Your task to perform on an android device: uninstall "Spotify: Music and Podcasts" Image 0: 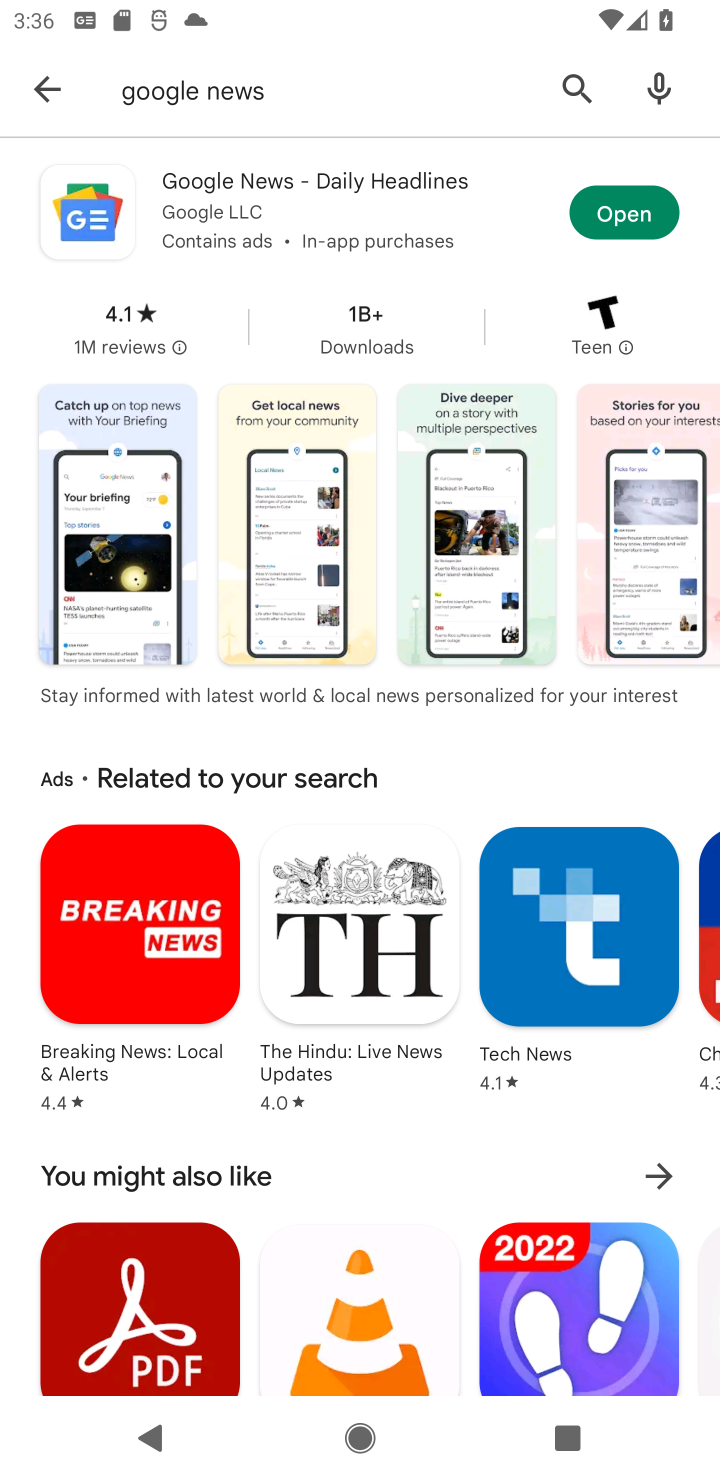
Step 0: press home button
Your task to perform on an android device: uninstall "Spotify: Music and Podcasts" Image 1: 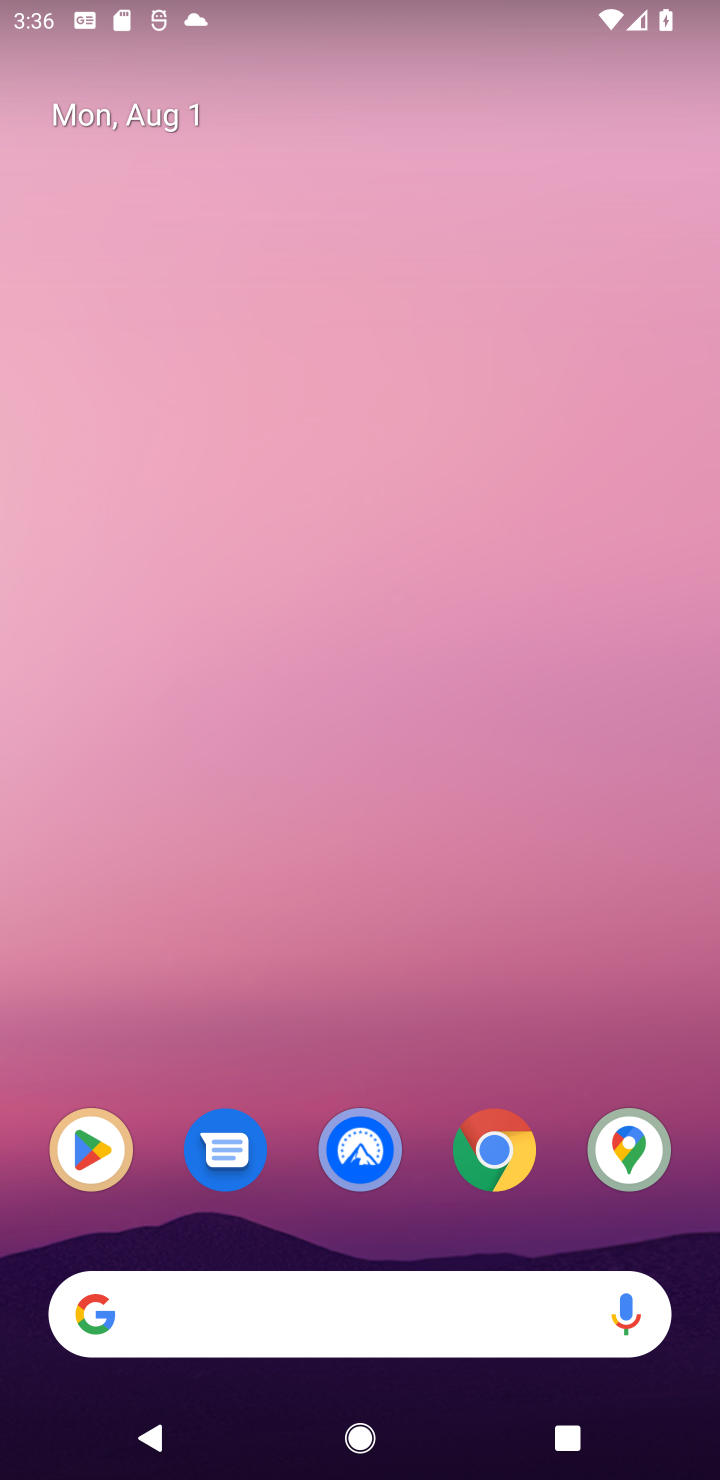
Step 1: click (73, 1171)
Your task to perform on an android device: uninstall "Spotify: Music and Podcasts" Image 2: 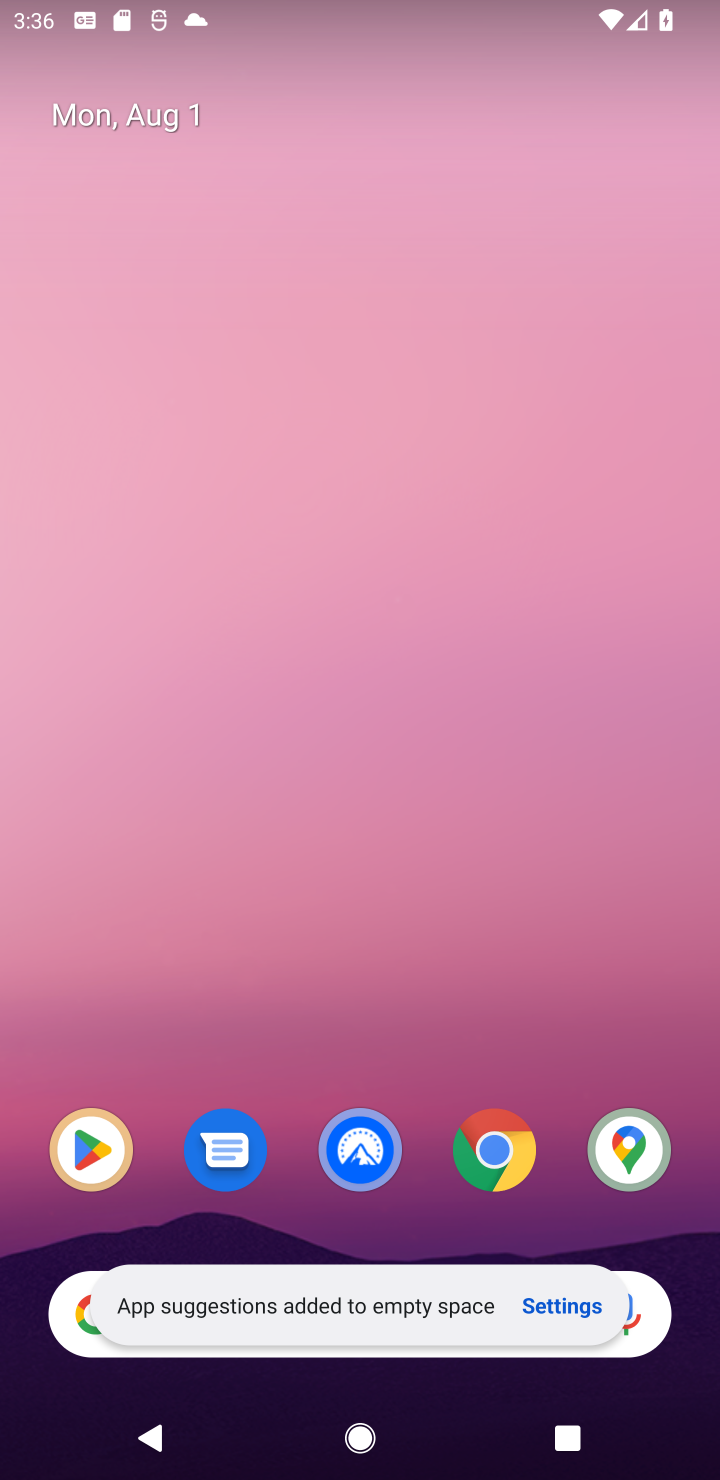
Step 2: click (176, 925)
Your task to perform on an android device: uninstall "Spotify: Music and Podcasts" Image 3: 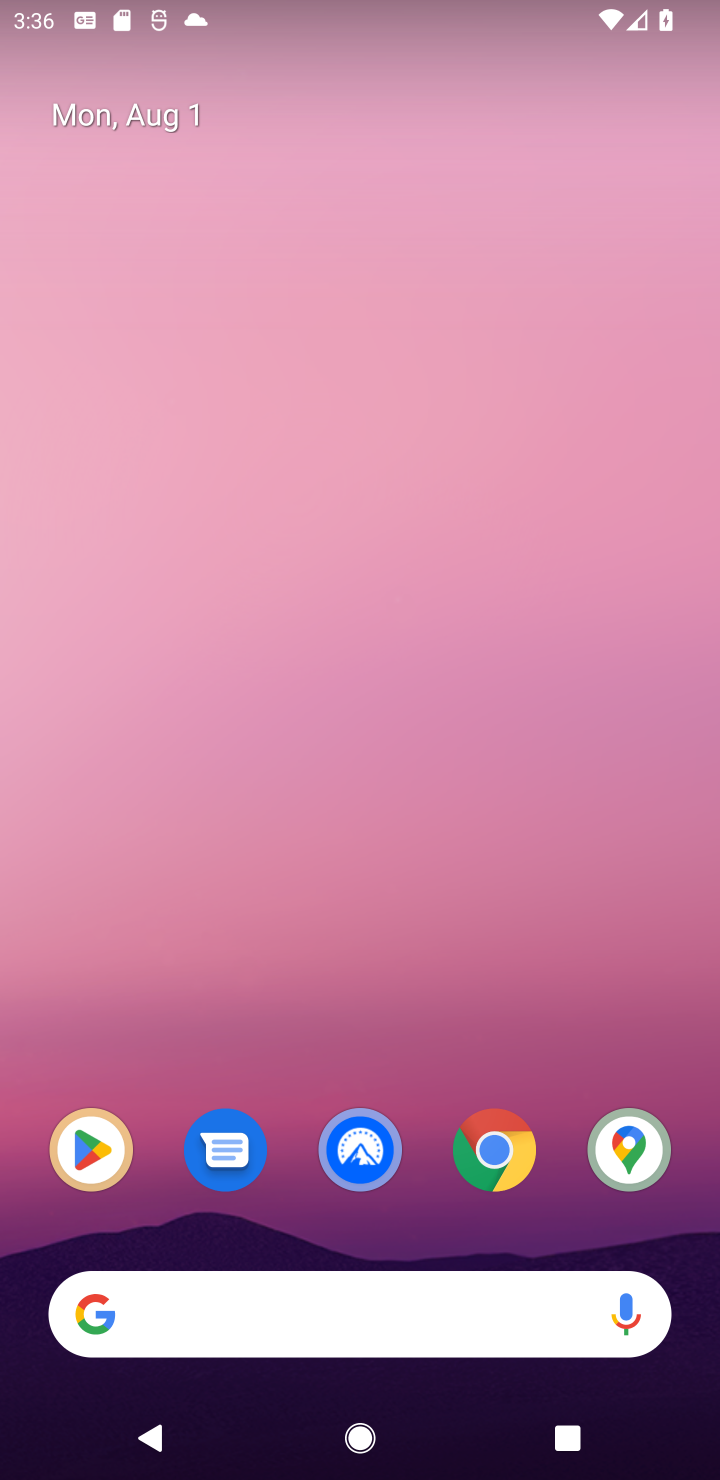
Step 3: click (91, 1127)
Your task to perform on an android device: uninstall "Spotify: Music and Podcasts" Image 4: 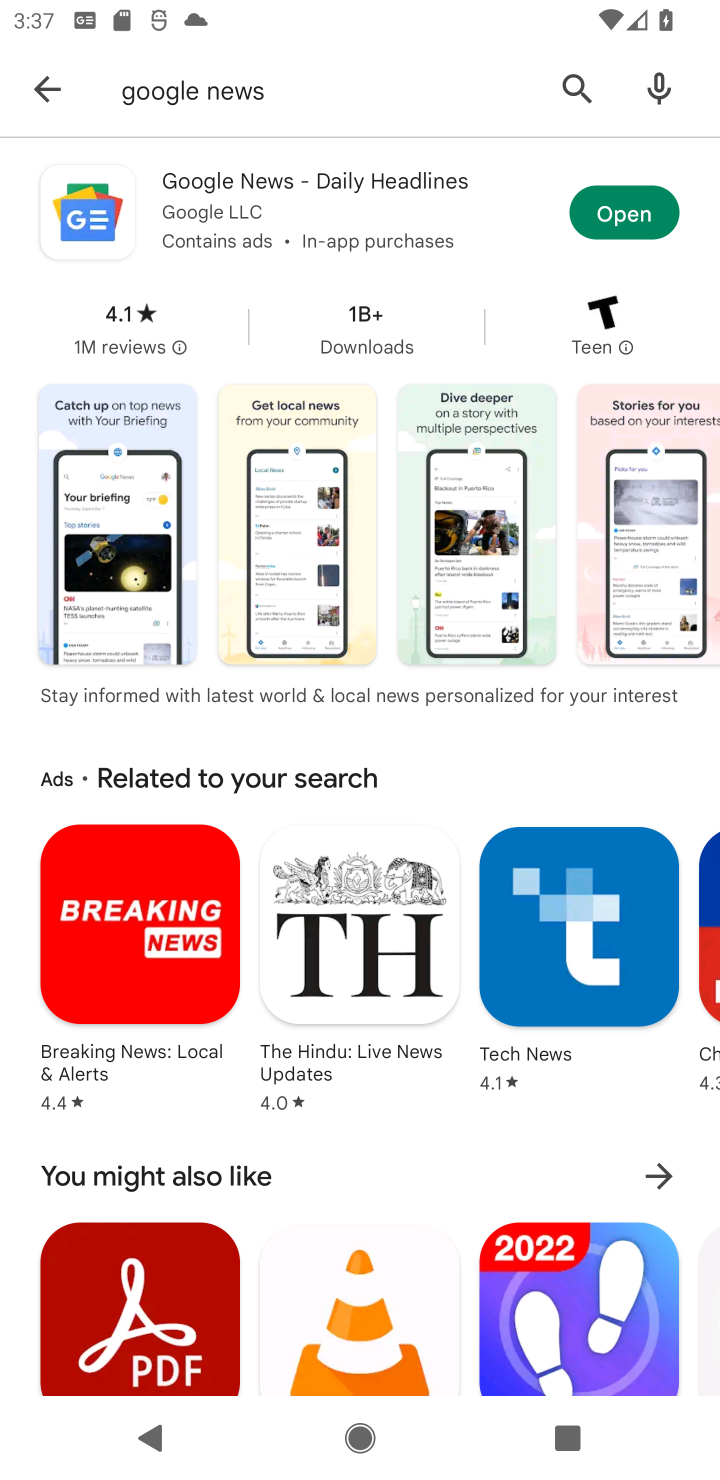
Step 4: click (576, 100)
Your task to perform on an android device: uninstall "Spotify: Music and Podcasts" Image 5: 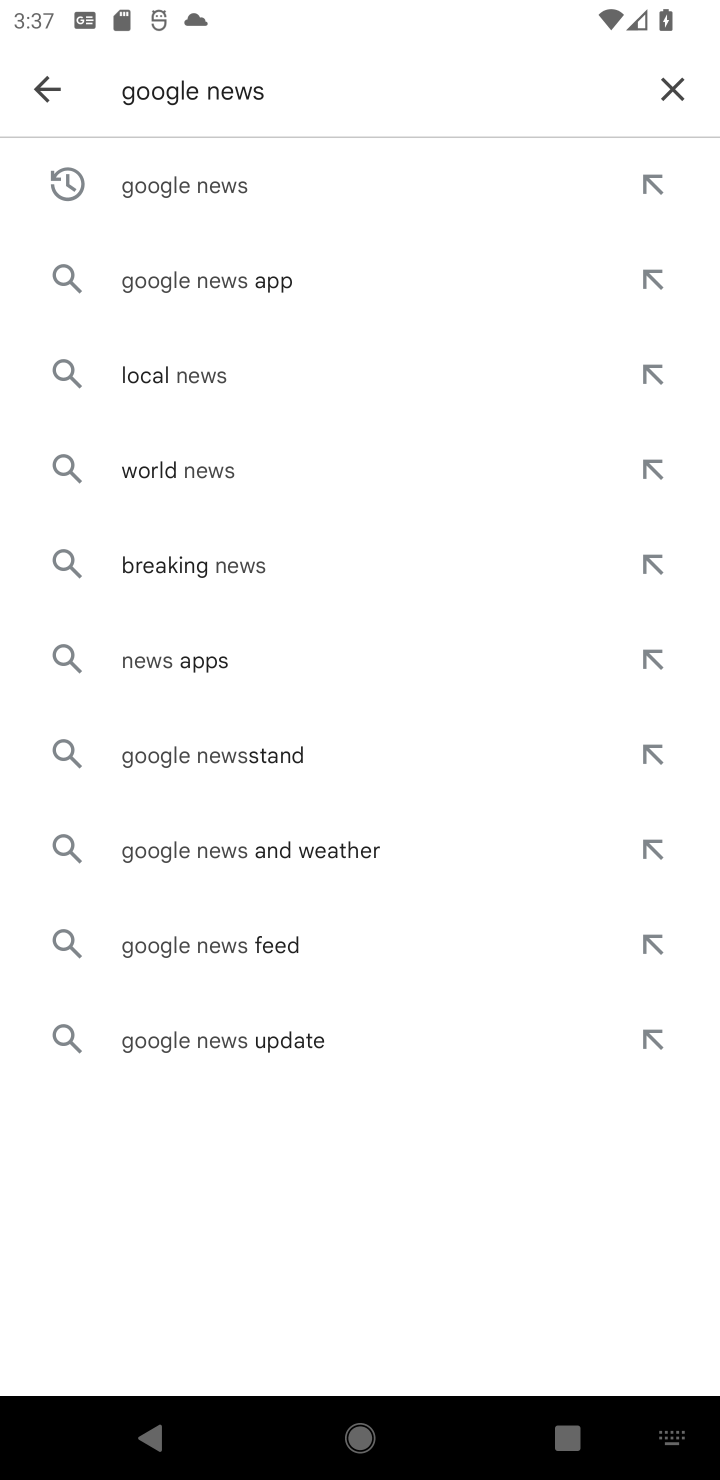
Step 5: click (657, 96)
Your task to perform on an android device: uninstall "Spotify: Music and Podcasts" Image 6: 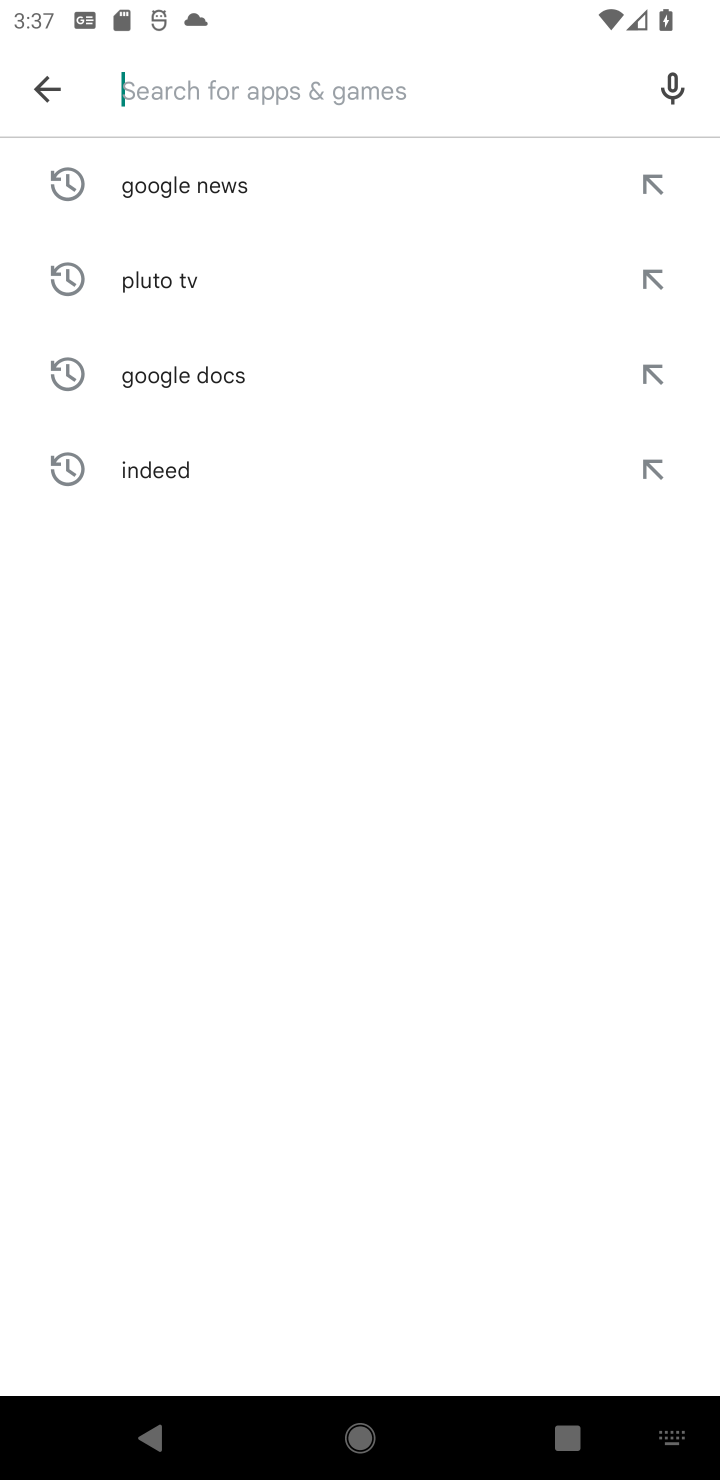
Step 6: type "spotify"
Your task to perform on an android device: uninstall "Spotify: Music and Podcasts" Image 7: 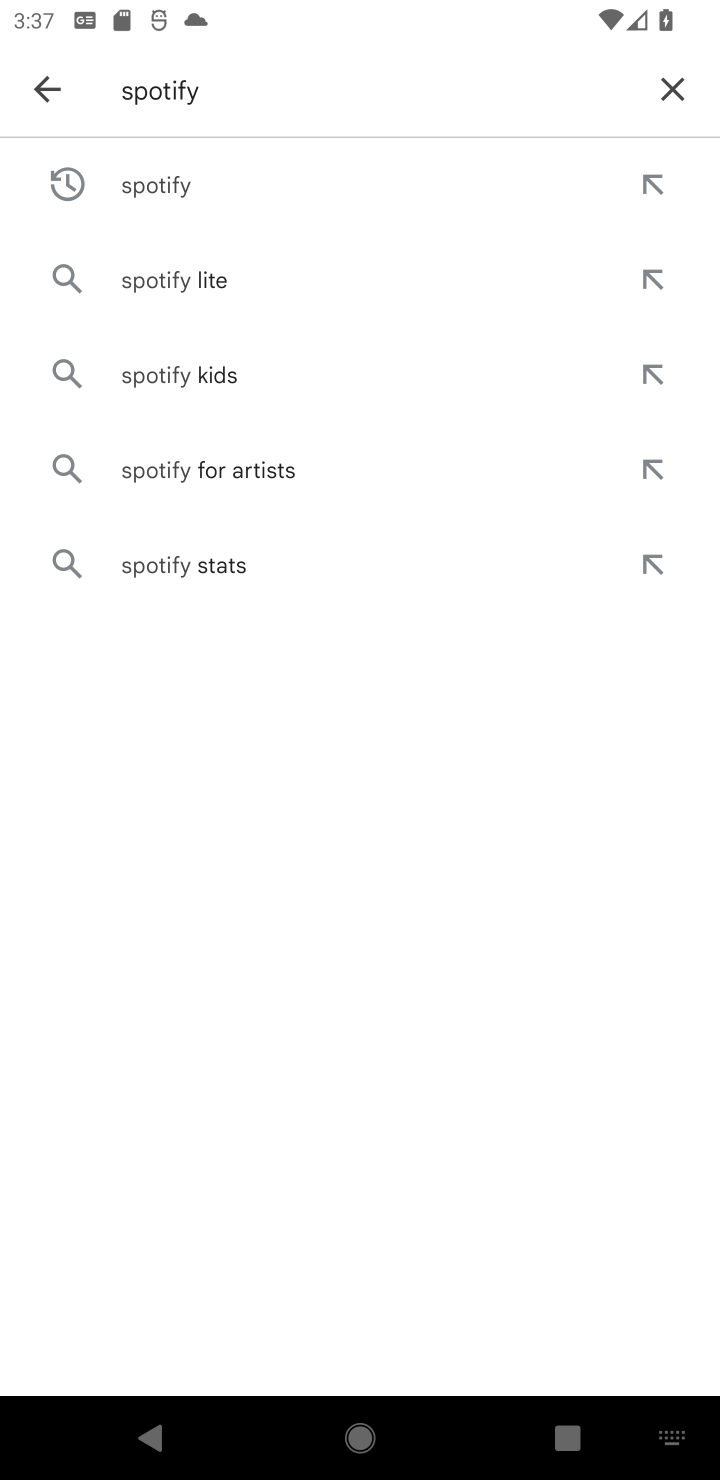
Step 7: click (195, 192)
Your task to perform on an android device: uninstall "Spotify: Music and Podcasts" Image 8: 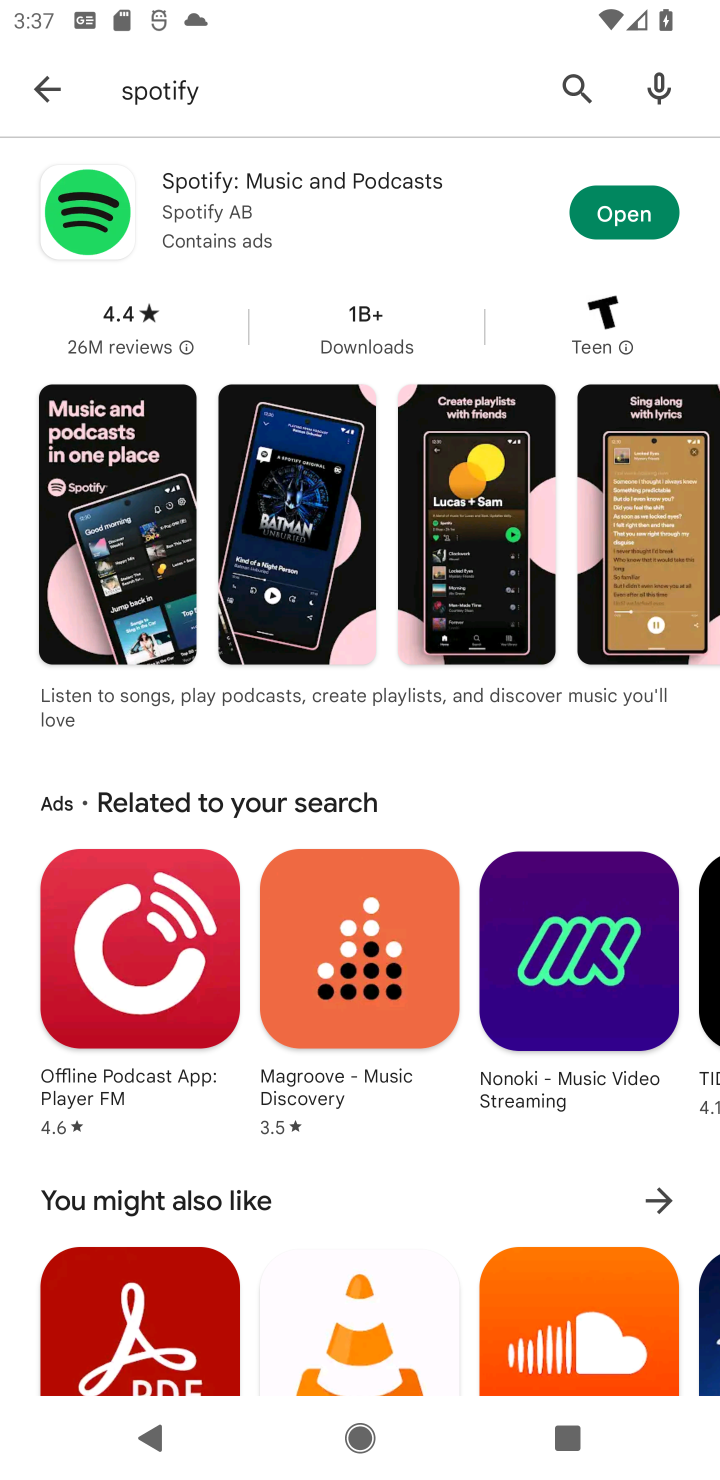
Step 8: click (630, 213)
Your task to perform on an android device: uninstall "Spotify: Music and Podcasts" Image 9: 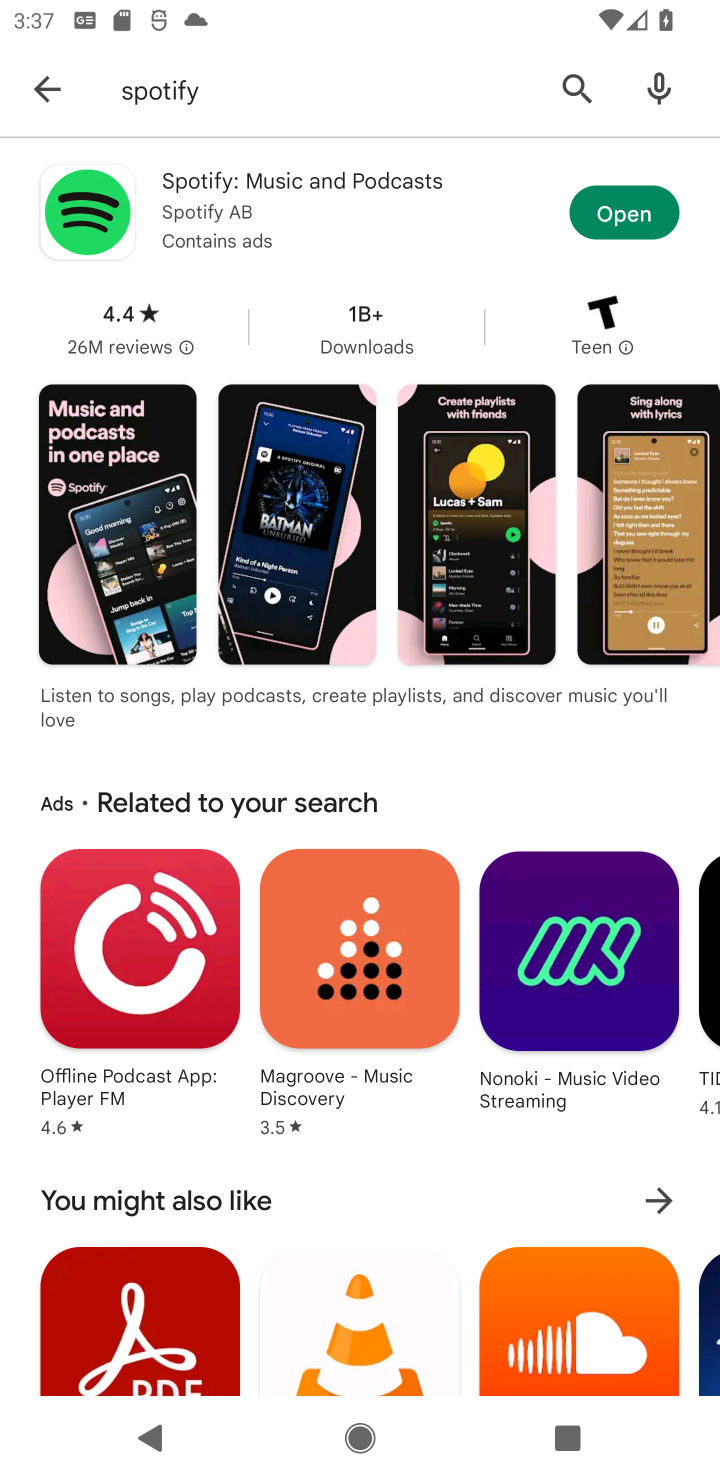
Step 9: task complete